Your task to perform on an android device: turn off sleep mode Image 0: 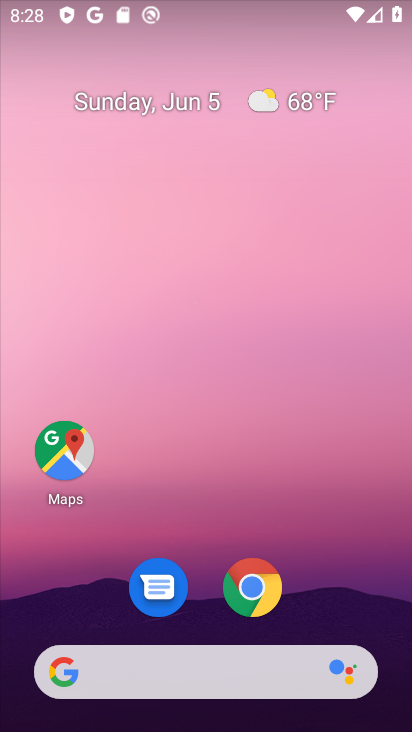
Step 0: drag from (329, 572) to (247, 207)
Your task to perform on an android device: turn off sleep mode Image 1: 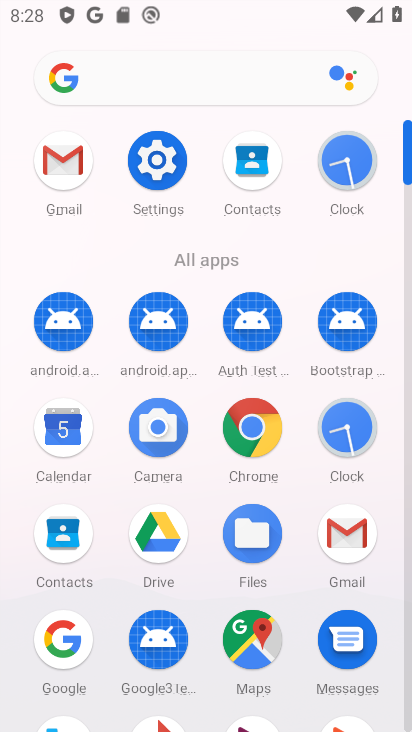
Step 1: click (147, 169)
Your task to perform on an android device: turn off sleep mode Image 2: 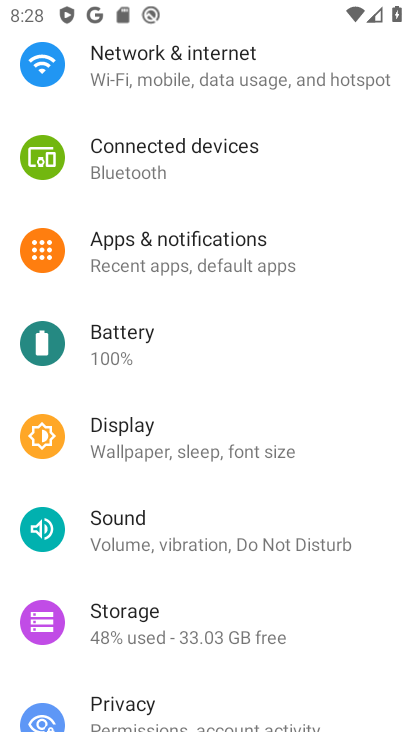
Step 2: task complete